Your task to perform on an android device: add a contact in the contacts app Image 0: 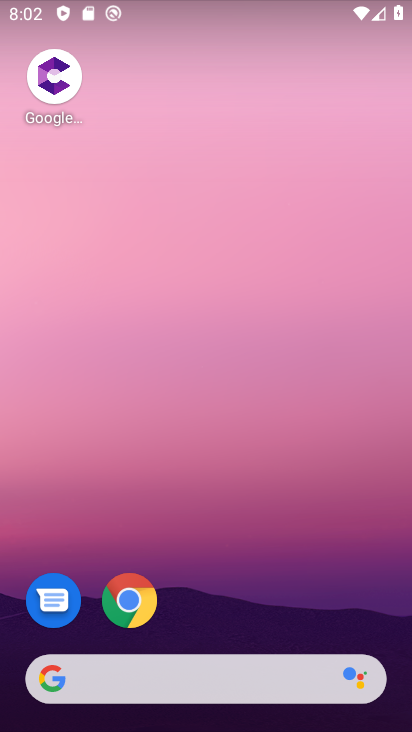
Step 0: drag from (212, 661) to (258, 211)
Your task to perform on an android device: add a contact in the contacts app Image 1: 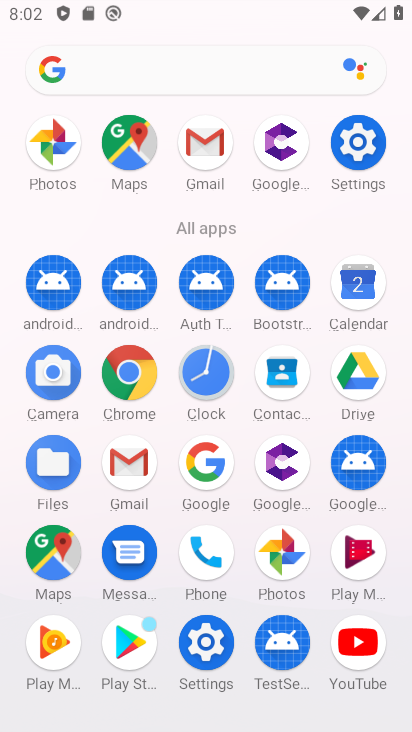
Step 1: click (292, 403)
Your task to perform on an android device: add a contact in the contacts app Image 2: 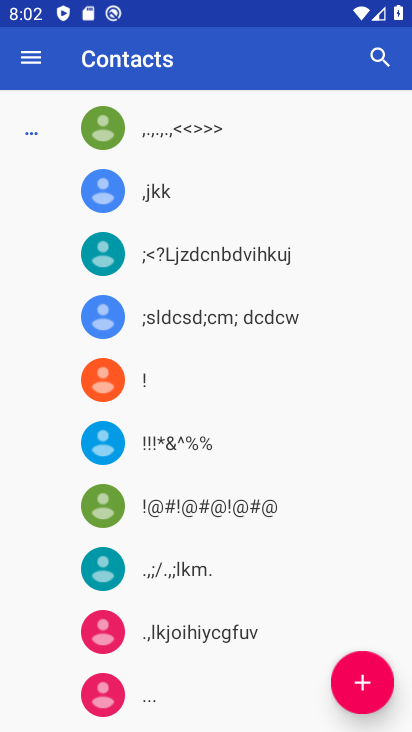
Step 2: click (353, 684)
Your task to perform on an android device: add a contact in the contacts app Image 3: 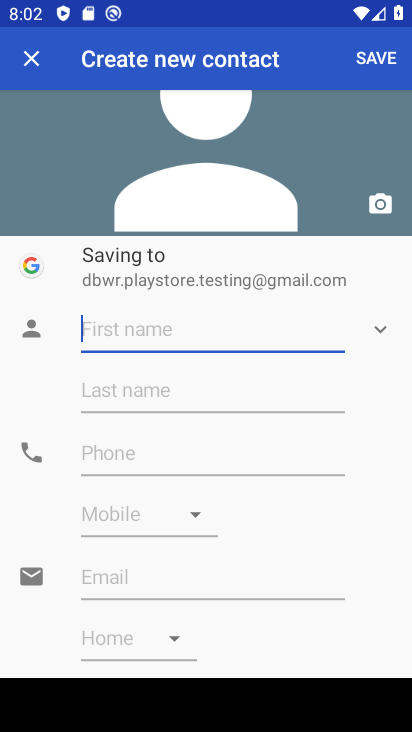
Step 3: type "yfugi"
Your task to perform on an android device: add a contact in the contacts app Image 4: 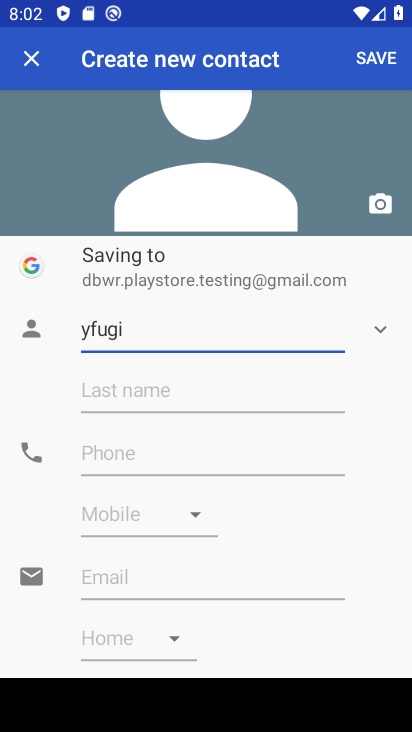
Step 4: click (170, 450)
Your task to perform on an android device: add a contact in the contacts app Image 5: 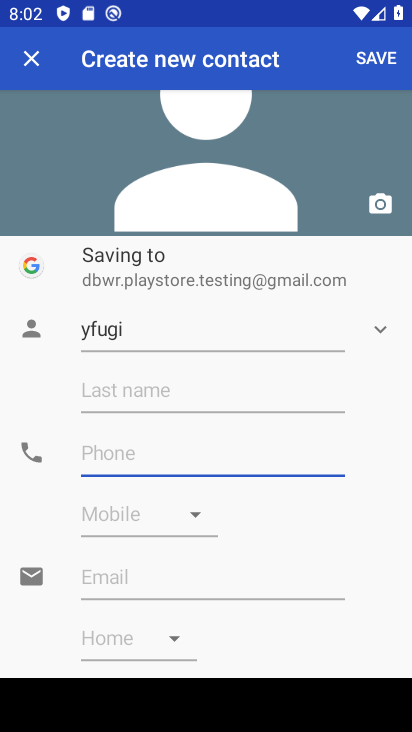
Step 5: type "9867576756"
Your task to perform on an android device: add a contact in the contacts app Image 6: 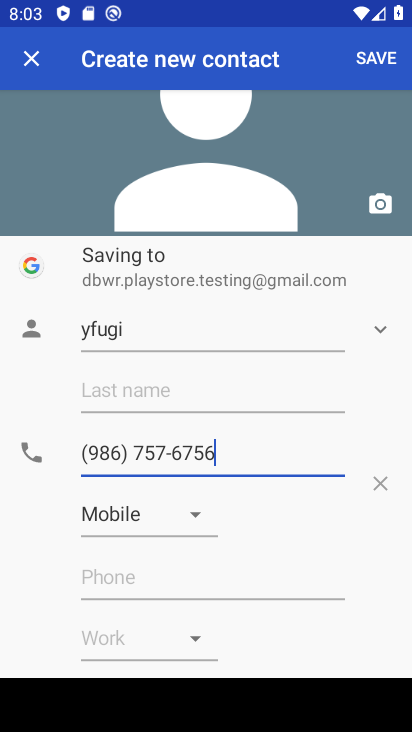
Step 6: click (370, 64)
Your task to perform on an android device: add a contact in the contacts app Image 7: 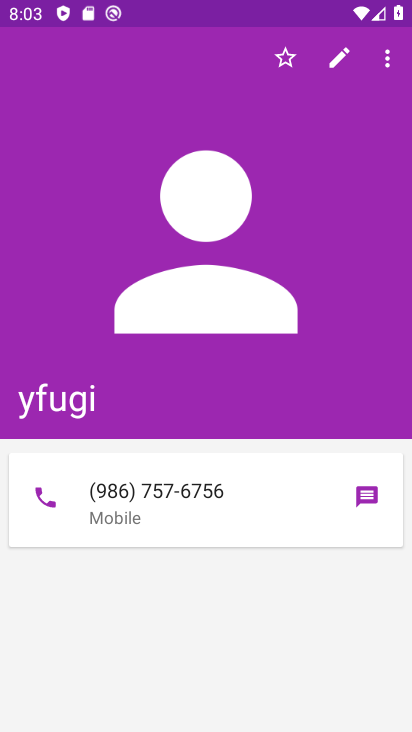
Step 7: task complete